Your task to perform on an android device: check google app version Image 0: 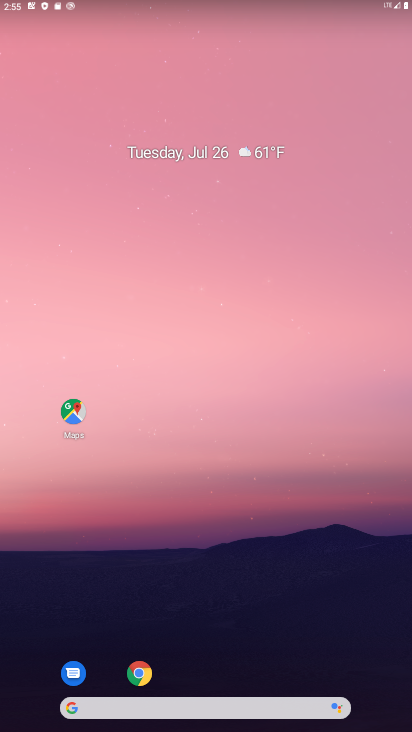
Step 0: click (213, 197)
Your task to perform on an android device: check google app version Image 1: 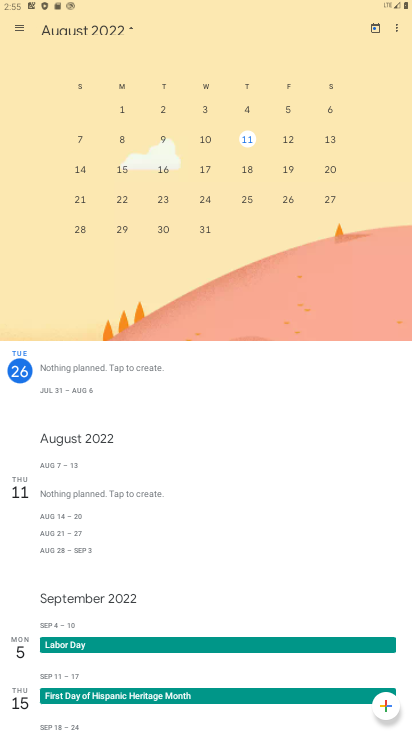
Step 1: press home button
Your task to perform on an android device: check google app version Image 2: 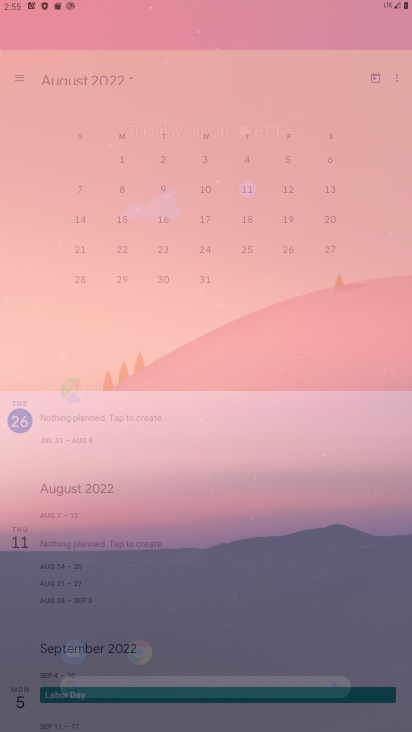
Step 2: drag from (202, 620) to (278, 99)
Your task to perform on an android device: check google app version Image 3: 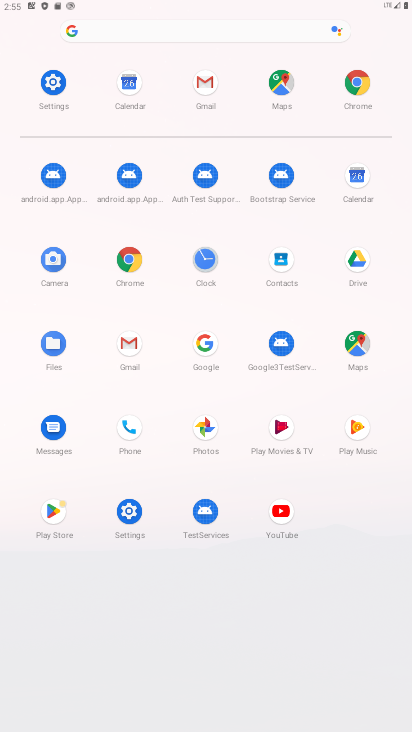
Step 3: click (200, 338)
Your task to perform on an android device: check google app version Image 4: 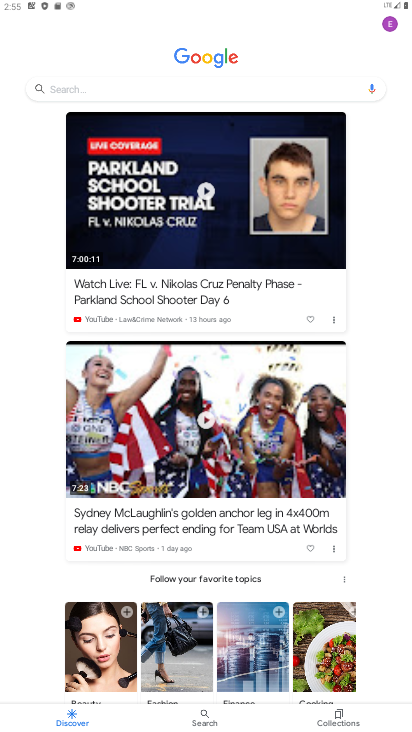
Step 4: drag from (394, 21) to (347, 230)
Your task to perform on an android device: check google app version Image 5: 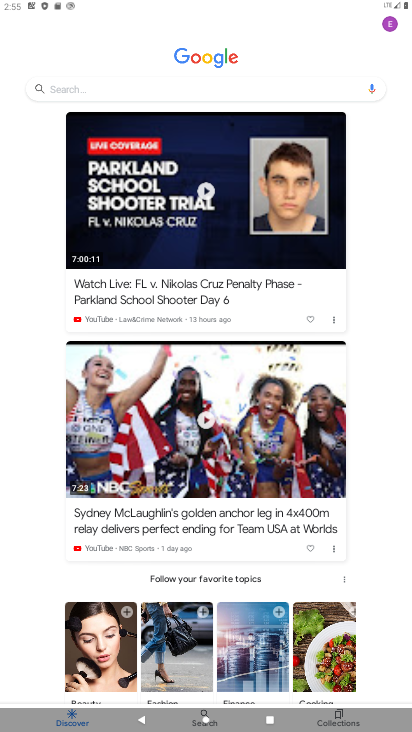
Step 5: click (390, 22)
Your task to perform on an android device: check google app version Image 6: 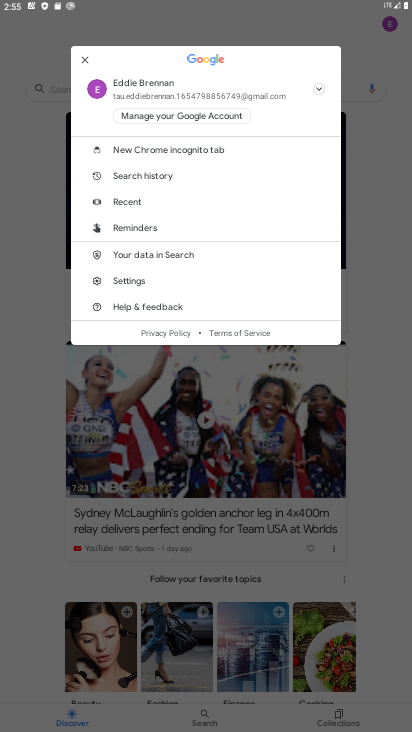
Step 6: click (113, 285)
Your task to perform on an android device: check google app version Image 7: 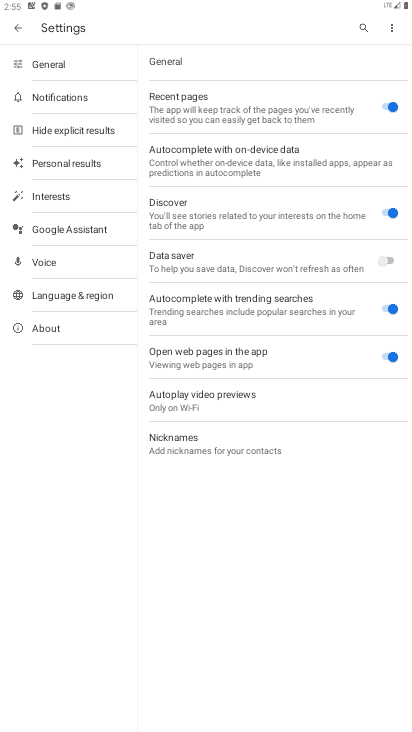
Step 7: click (63, 322)
Your task to perform on an android device: check google app version Image 8: 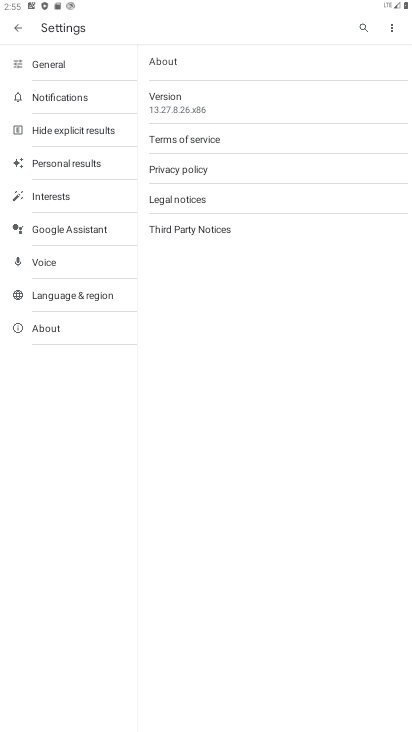
Step 8: click (214, 107)
Your task to perform on an android device: check google app version Image 9: 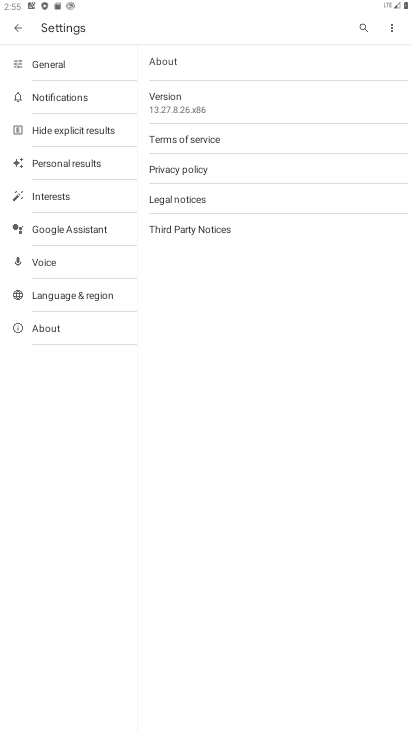
Step 9: task complete